Your task to perform on an android device: turn off wifi Image 0: 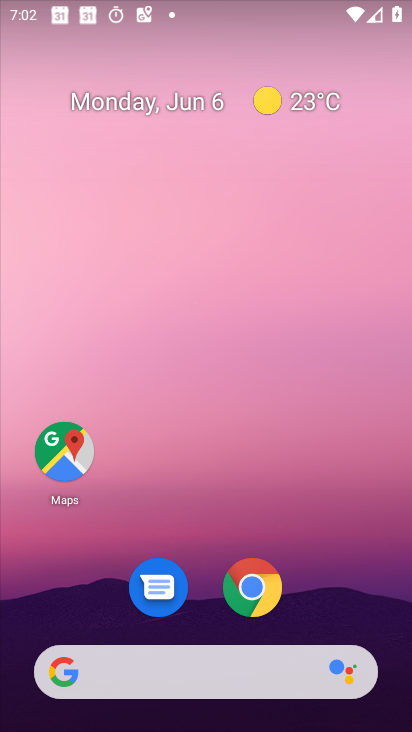
Step 0: drag from (223, 13) to (246, 489)
Your task to perform on an android device: turn off wifi Image 1: 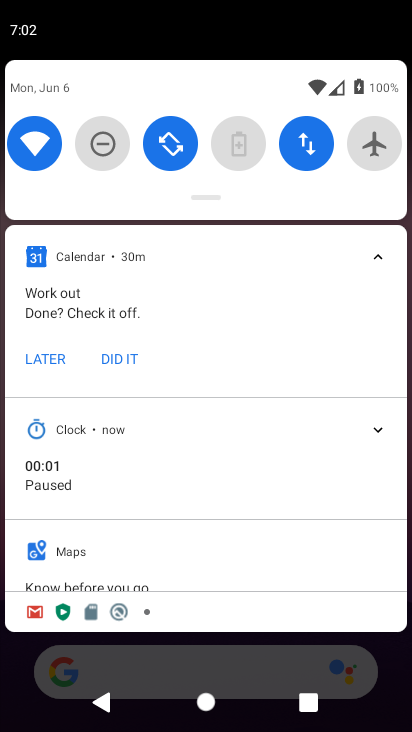
Step 1: click (34, 123)
Your task to perform on an android device: turn off wifi Image 2: 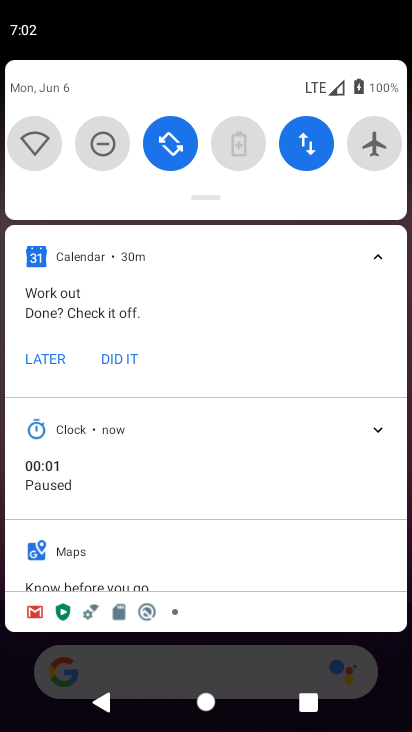
Step 2: task complete